Your task to perform on an android device: turn on javascript in the chrome app Image 0: 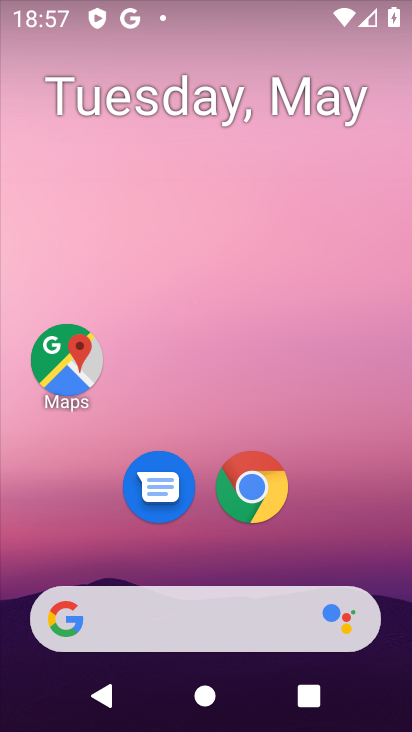
Step 0: click (63, 357)
Your task to perform on an android device: turn on javascript in the chrome app Image 1: 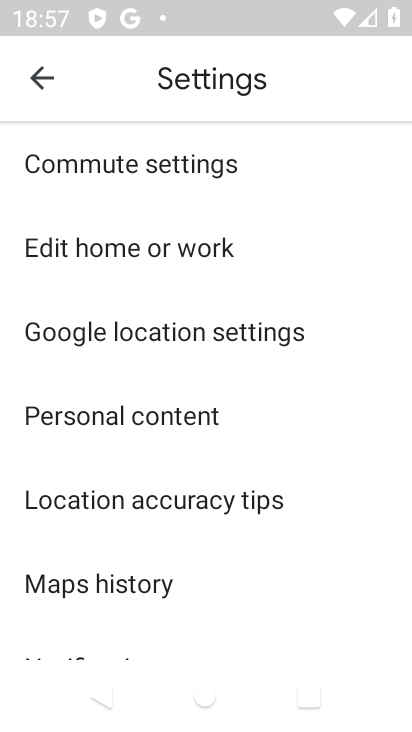
Step 1: click (39, 70)
Your task to perform on an android device: turn on javascript in the chrome app Image 2: 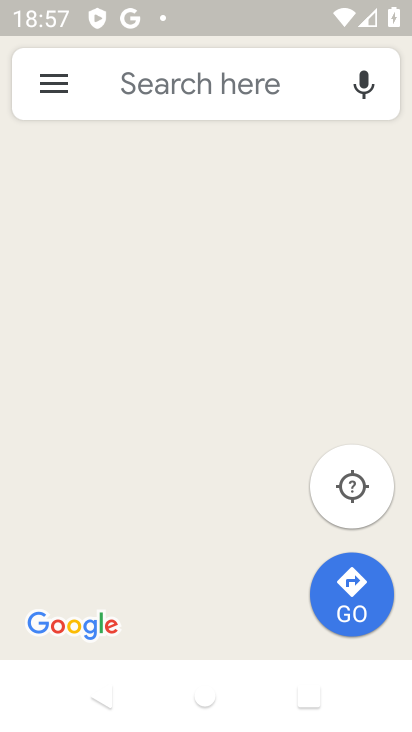
Step 2: click (126, 82)
Your task to perform on an android device: turn on javascript in the chrome app Image 3: 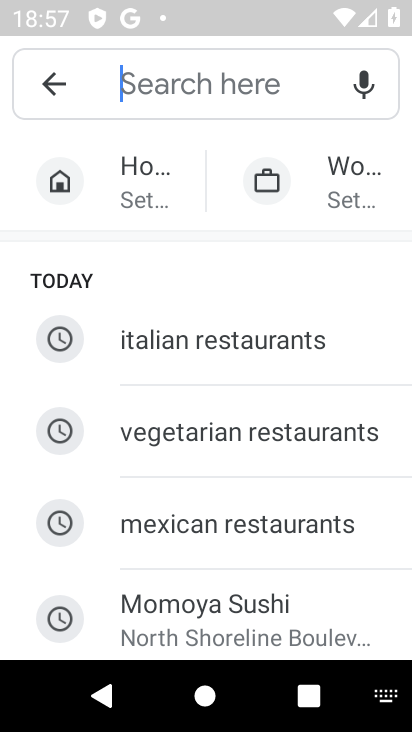
Step 3: press home button
Your task to perform on an android device: turn on javascript in the chrome app Image 4: 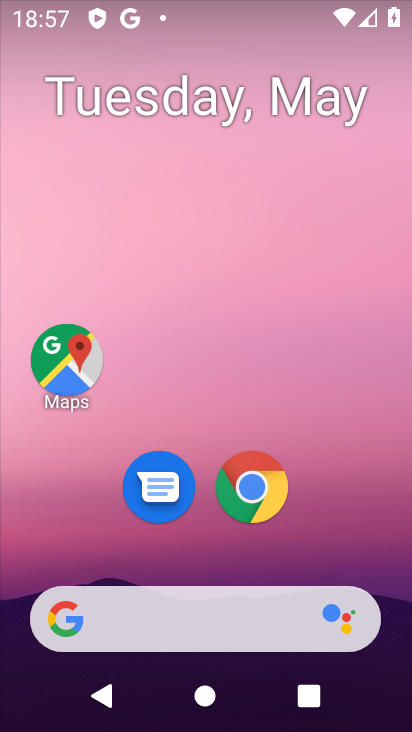
Step 4: click (264, 489)
Your task to perform on an android device: turn on javascript in the chrome app Image 5: 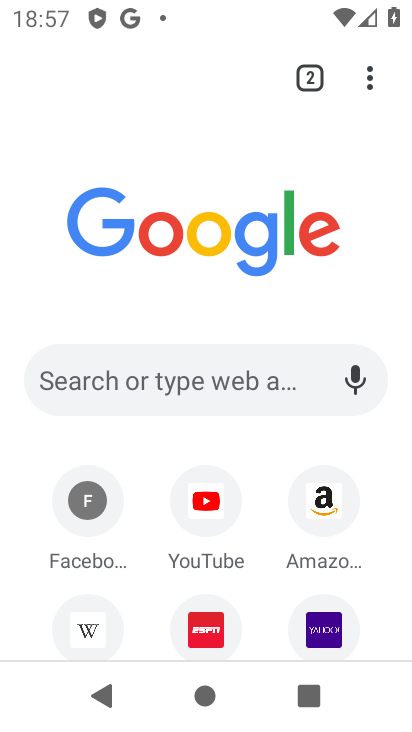
Step 5: click (370, 75)
Your task to perform on an android device: turn on javascript in the chrome app Image 6: 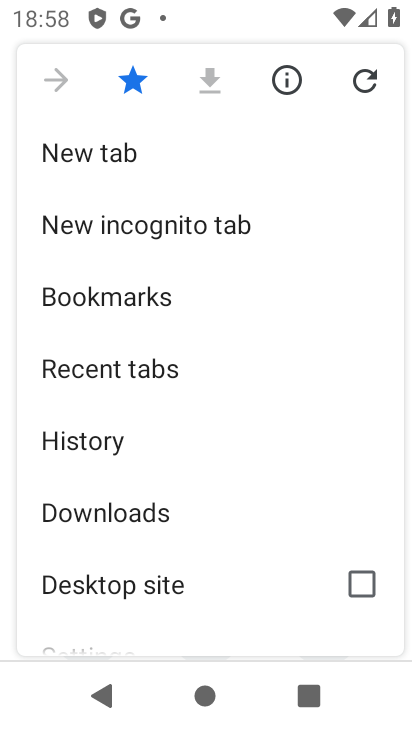
Step 6: drag from (228, 549) to (173, 254)
Your task to perform on an android device: turn on javascript in the chrome app Image 7: 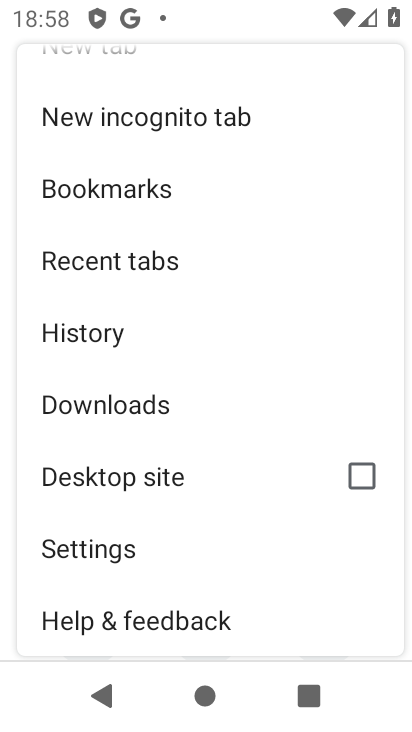
Step 7: click (101, 557)
Your task to perform on an android device: turn on javascript in the chrome app Image 8: 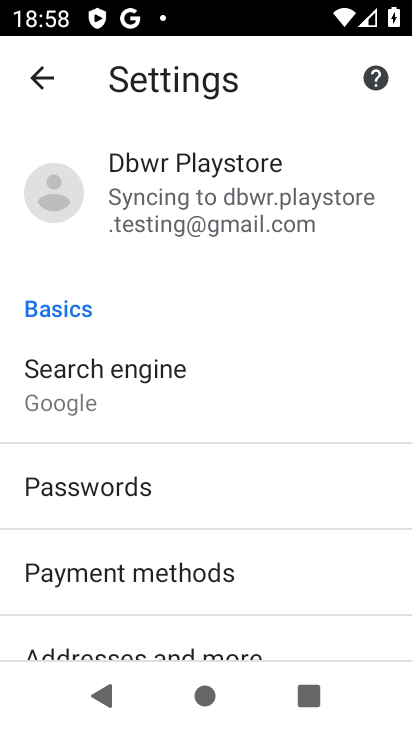
Step 8: drag from (232, 510) to (205, 117)
Your task to perform on an android device: turn on javascript in the chrome app Image 9: 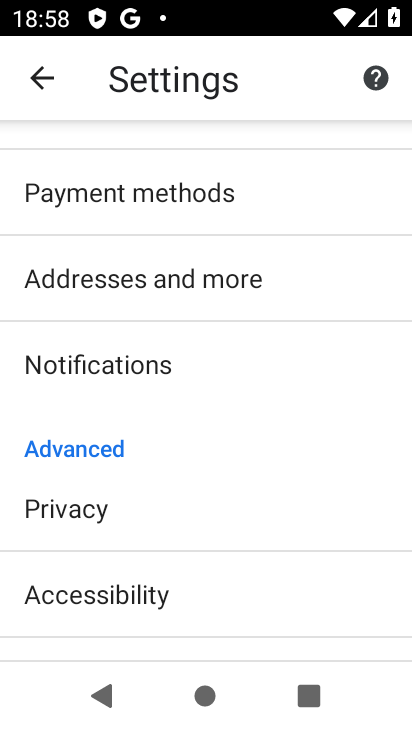
Step 9: drag from (280, 500) to (232, 194)
Your task to perform on an android device: turn on javascript in the chrome app Image 10: 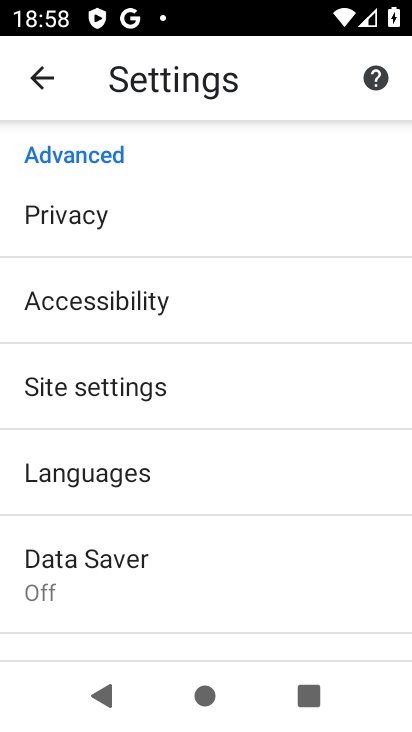
Step 10: click (129, 388)
Your task to perform on an android device: turn on javascript in the chrome app Image 11: 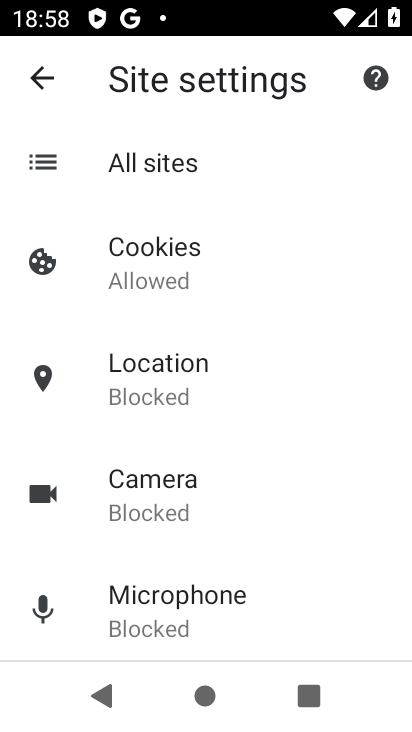
Step 11: drag from (235, 518) to (192, 231)
Your task to perform on an android device: turn on javascript in the chrome app Image 12: 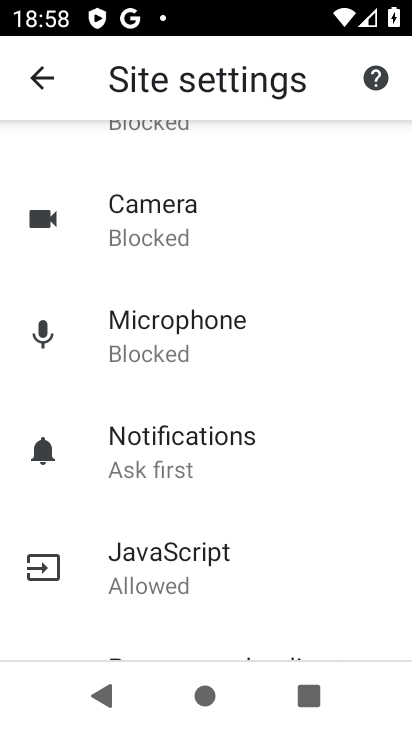
Step 12: click (186, 556)
Your task to perform on an android device: turn on javascript in the chrome app Image 13: 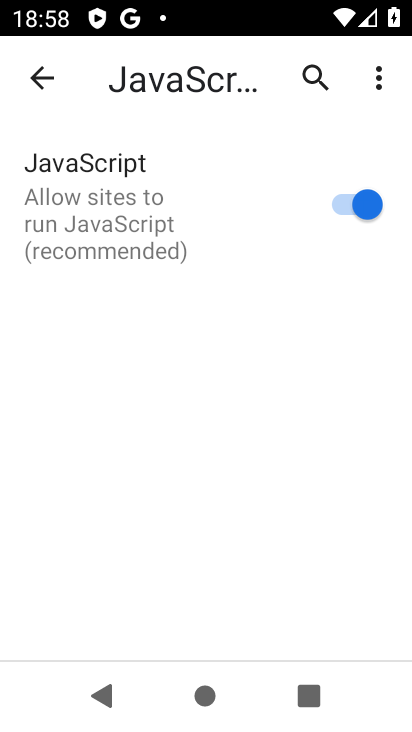
Step 13: task complete